Your task to perform on an android device: What is the capital of Spain? Image 0: 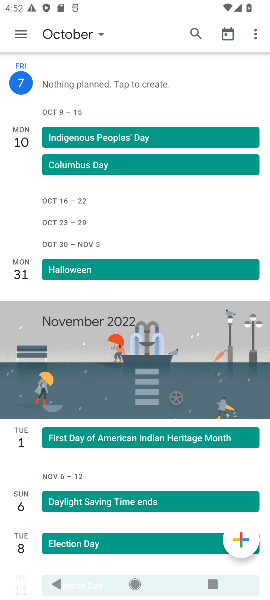
Step 0: click (137, 584)
Your task to perform on an android device: What is the capital of Spain? Image 1: 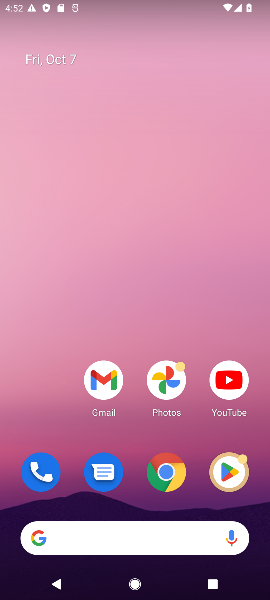
Step 1: click (176, 468)
Your task to perform on an android device: What is the capital of Spain? Image 2: 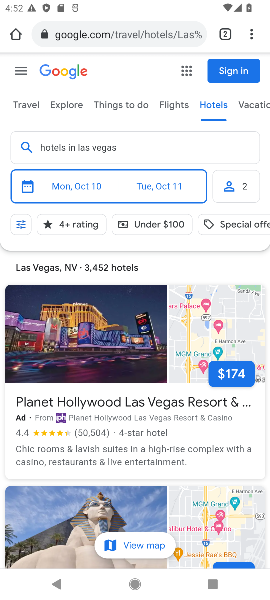
Step 2: click (110, 33)
Your task to perform on an android device: What is the capital of Spain? Image 3: 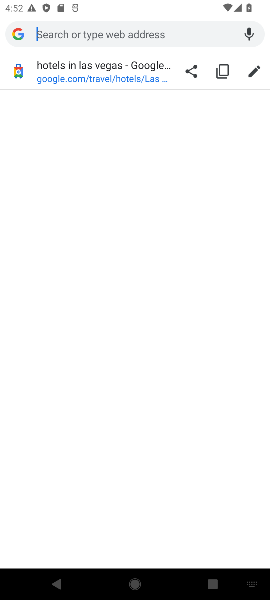
Step 3: type "capital of Spain"
Your task to perform on an android device: What is the capital of Spain? Image 4: 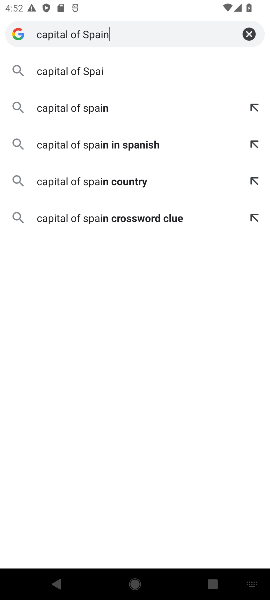
Step 4: type ""
Your task to perform on an android device: What is the capital of Spain? Image 5: 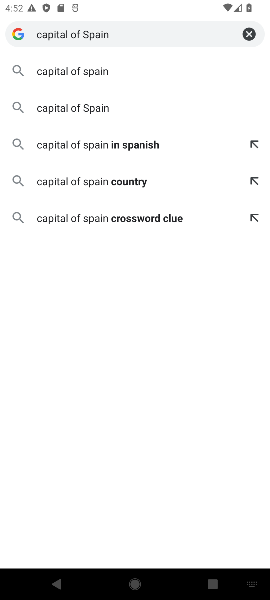
Step 5: click (99, 72)
Your task to perform on an android device: What is the capital of Spain? Image 6: 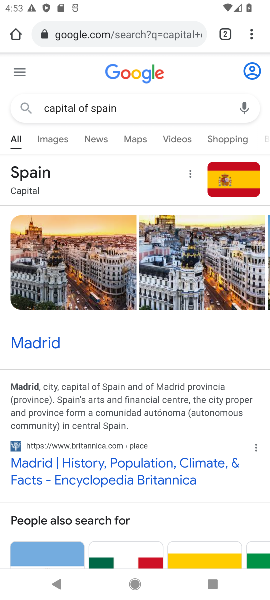
Step 6: task complete